Your task to perform on an android device: Open settings on Google Maps Image 0: 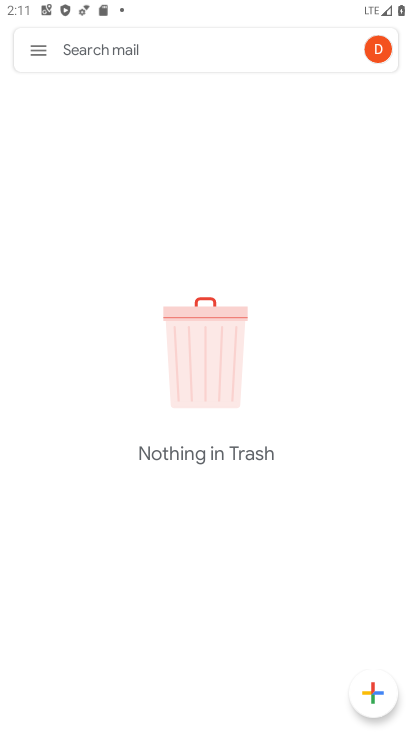
Step 0: press back button
Your task to perform on an android device: Open settings on Google Maps Image 1: 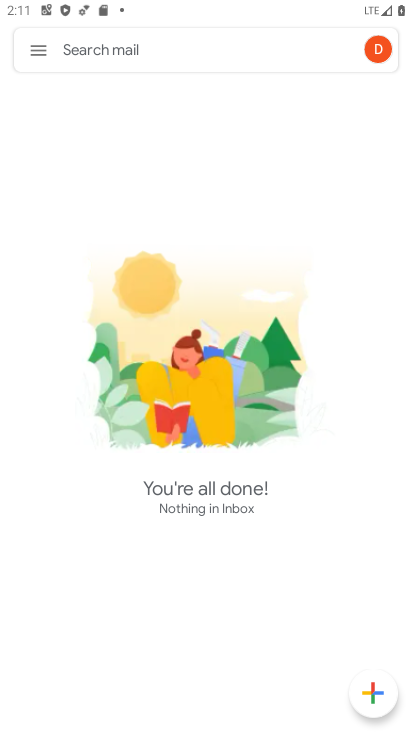
Step 1: press back button
Your task to perform on an android device: Open settings on Google Maps Image 2: 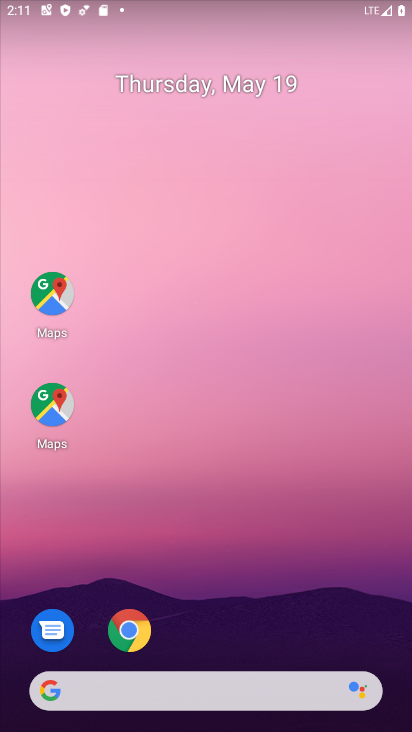
Step 2: drag from (224, 601) to (260, 52)
Your task to perform on an android device: Open settings on Google Maps Image 3: 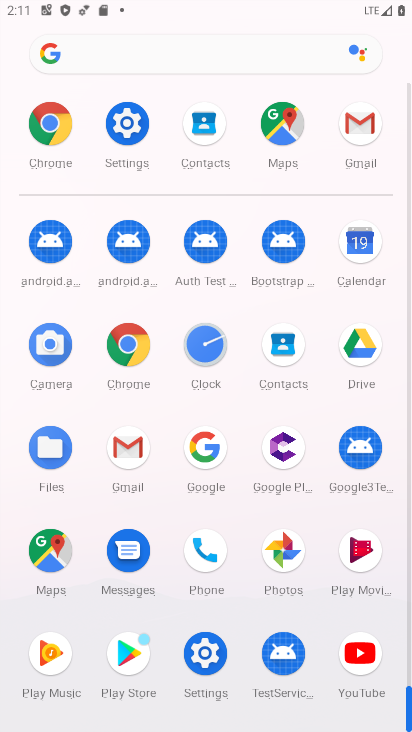
Step 3: click (281, 120)
Your task to perform on an android device: Open settings on Google Maps Image 4: 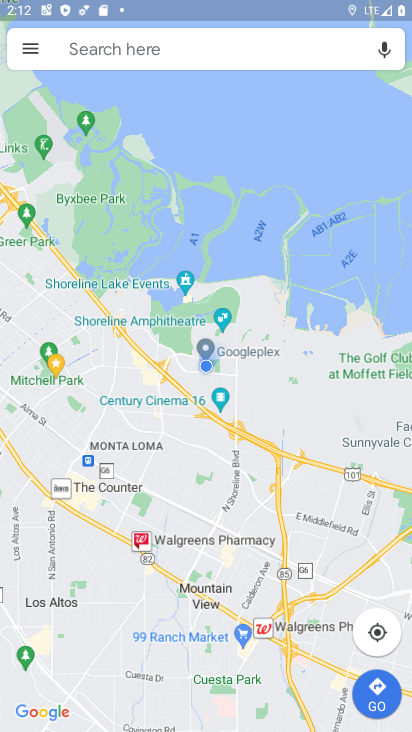
Step 4: click (18, 40)
Your task to perform on an android device: Open settings on Google Maps Image 5: 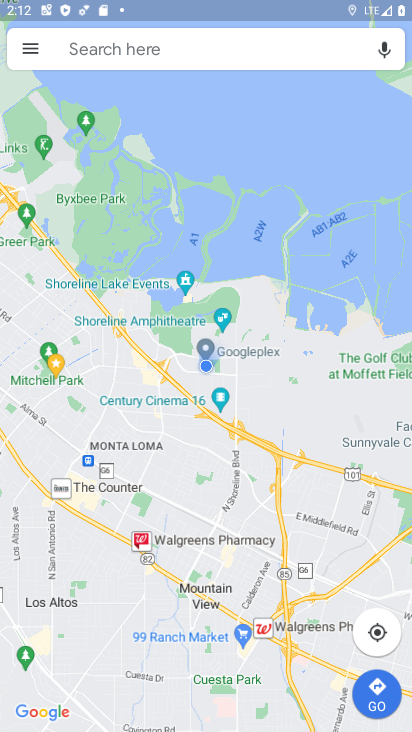
Step 5: click (30, 52)
Your task to perform on an android device: Open settings on Google Maps Image 6: 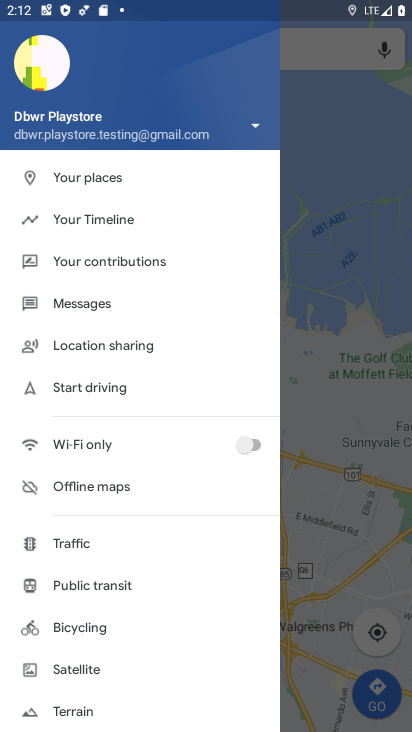
Step 6: drag from (106, 663) to (134, 269)
Your task to perform on an android device: Open settings on Google Maps Image 7: 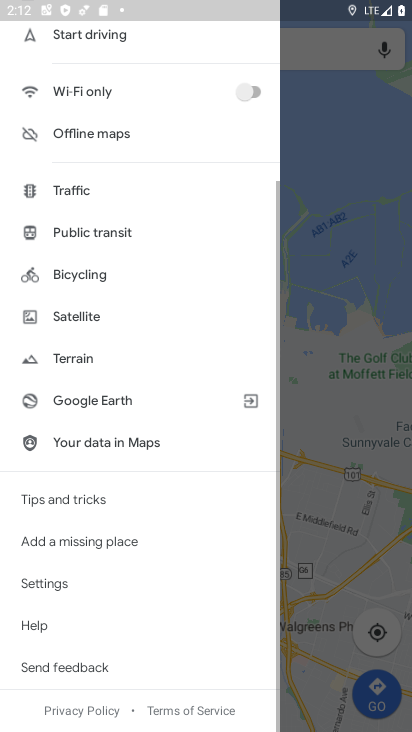
Step 7: click (51, 582)
Your task to perform on an android device: Open settings on Google Maps Image 8: 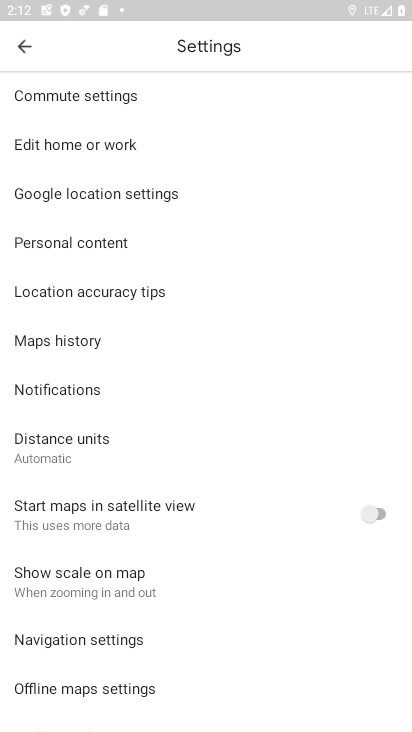
Step 8: task complete